Your task to perform on an android device: visit the assistant section in the google photos Image 0: 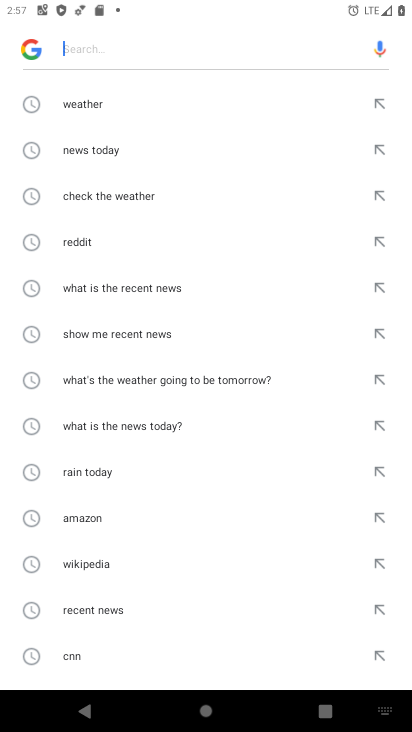
Step 0: press home button
Your task to perform on an android device: visit the assistant section in the google photos Image 1: 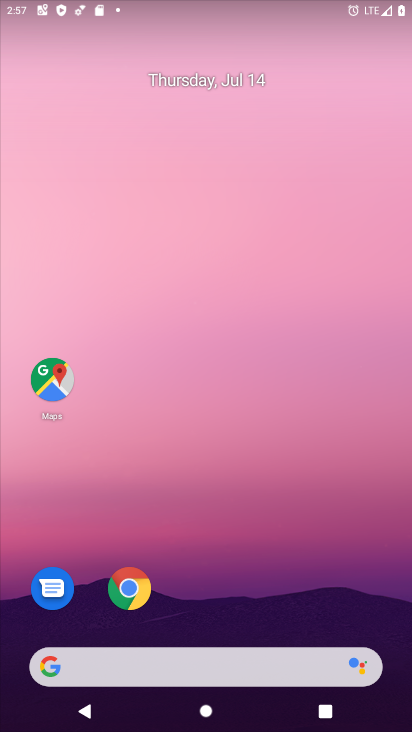
Step 1: drag from (217, 637) to (247, 238)
Your task to perform on an android device: visit the assistant section in the google photos Image 2: 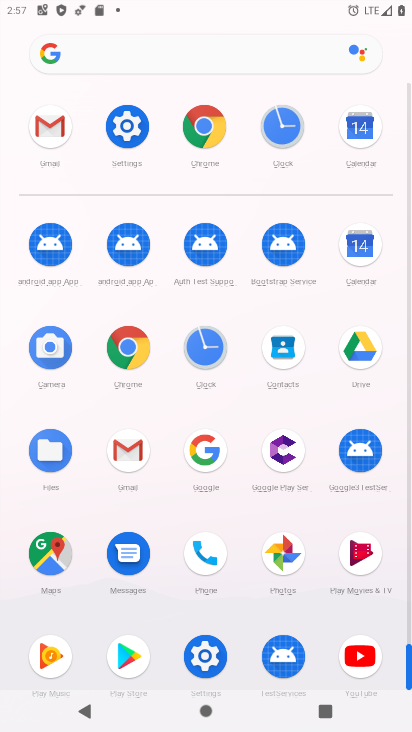
Step 2: click (268, 540)
Your task to perform on an android device: visit the assistant section in the google photos Image 3: 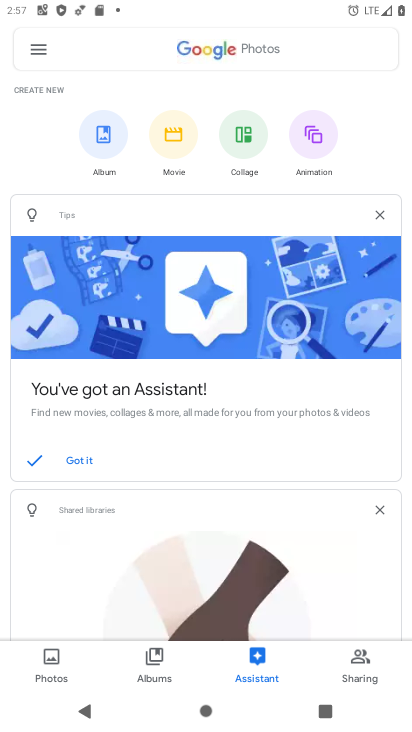
Step 3: task complete